Your task to perform on an android device: turn notification dots on Image 0: 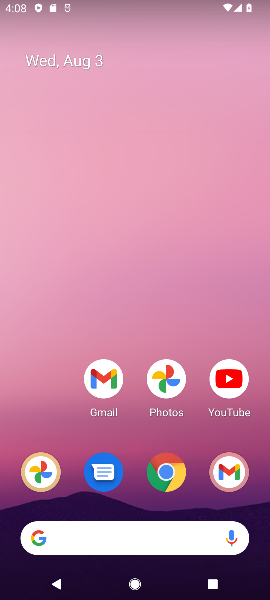
Step 0: drag from (75, 425) to (157, 3)
Your task to perform on an android device: turn notification dots on Image 1: 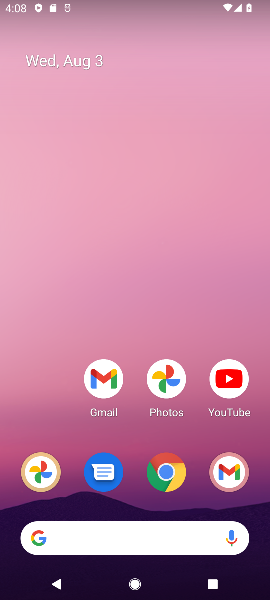
Step 1: drag from (138, 439) to (209, 20)
Your task to perform on an android device: turn notification dots on Image 2: 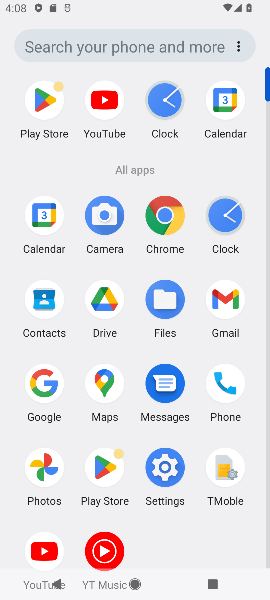
Step 2: click (169, 467)
Your task to perform on an android device: turn notification dots on Image 3: 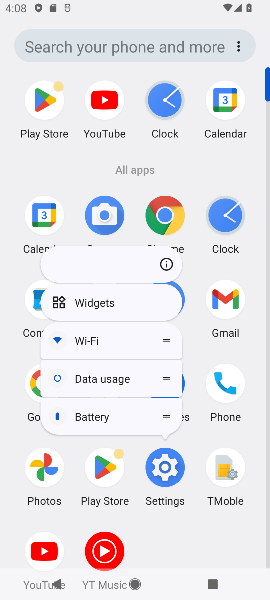
Step 3: click (165, 476)
Your task to perform on an android device: turn notification dots on Image 4: 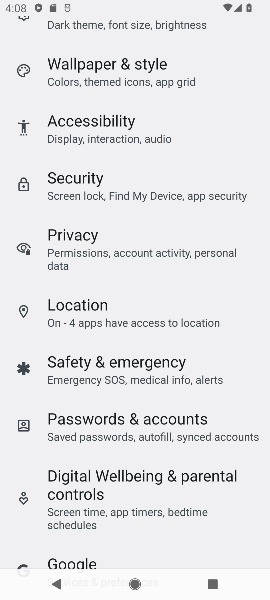
Step 4: drag from (215, 105) to (202, 503)
Your task to perform on an android device: turn notification dots on Image 5: 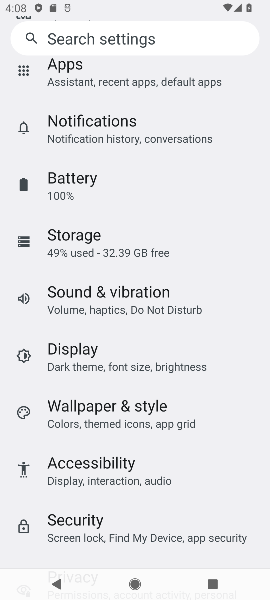
Step 5: click (127, 127)
Your task to perform on an android device: turn notification dots on Image 6: 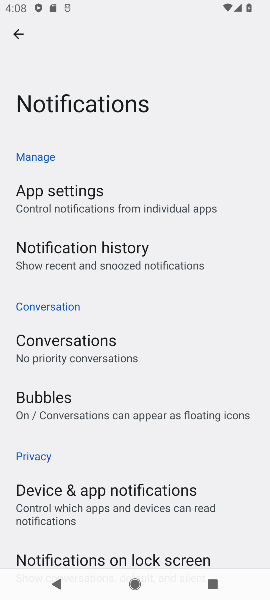
Step 6: click (160, 490)
Your task to perform on an android device: turn notification dots on Image 7: 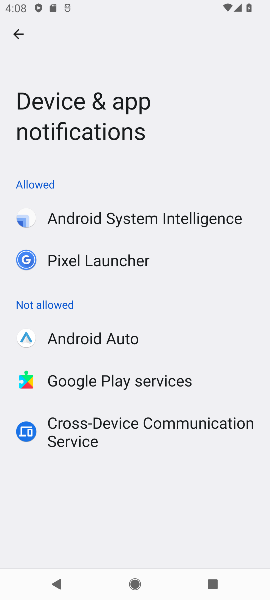
Step 7: click (18, 33)
Your task to perform on an android device: turn notification dots on Image 8: 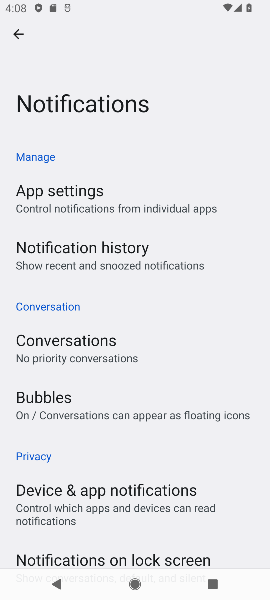
Step 8: task complete